Your task to perform on an android device: See recent photos Image 0: 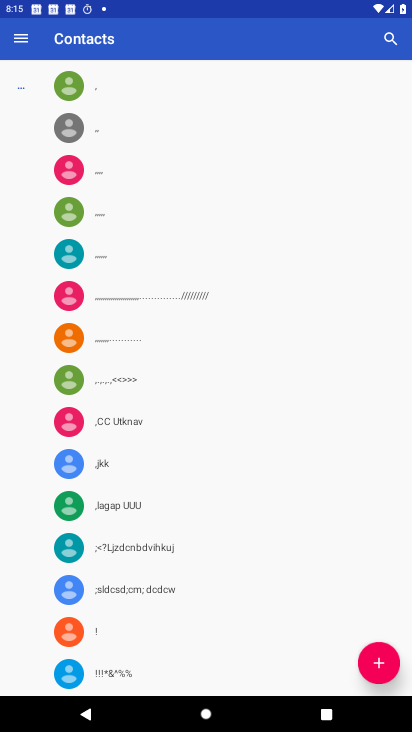
Step 0: press home button
Your task to perform on an android device: See recent photos Image 1: 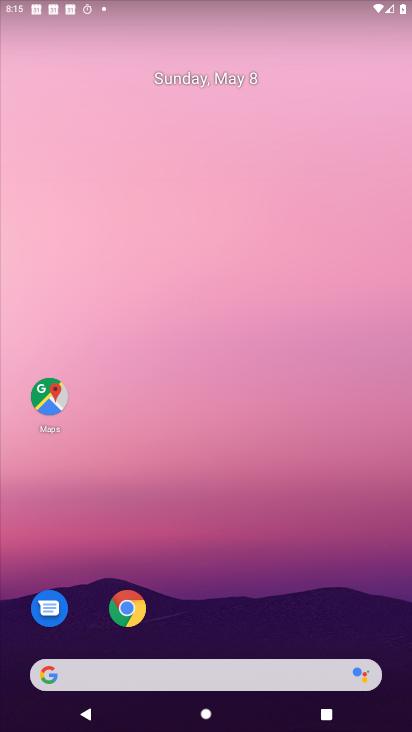
Step 1: drag from (308, 609) to (326, 154)
Your task to perform on an android device: See recent photos Image 2: 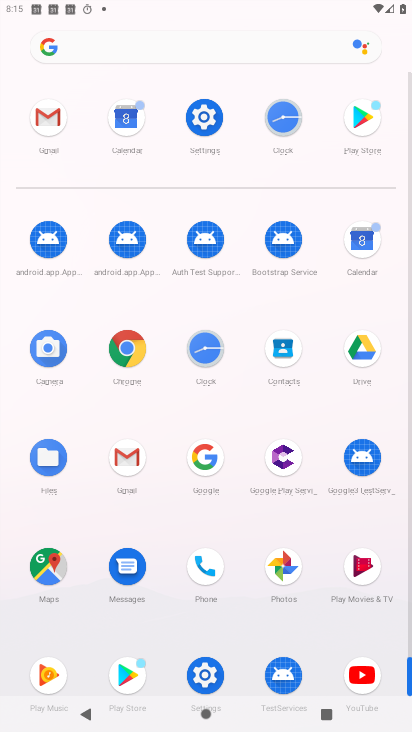
Step 2: click (291, 575)
Your task to perform on an android device: See recent photos Image 3: 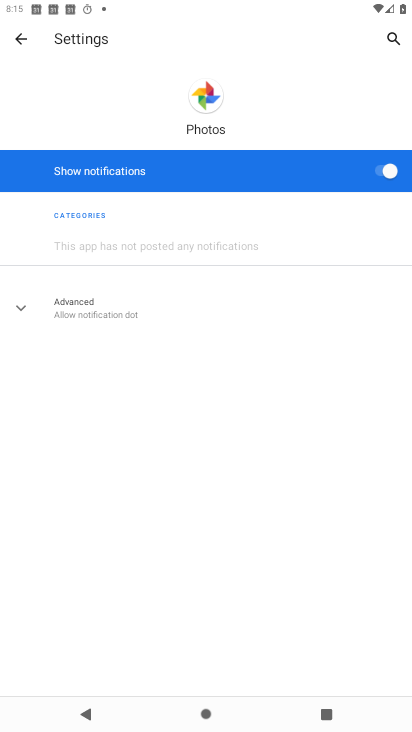
Step 3: press back button
Your task to perform on an android device: See recent photos Image 4: 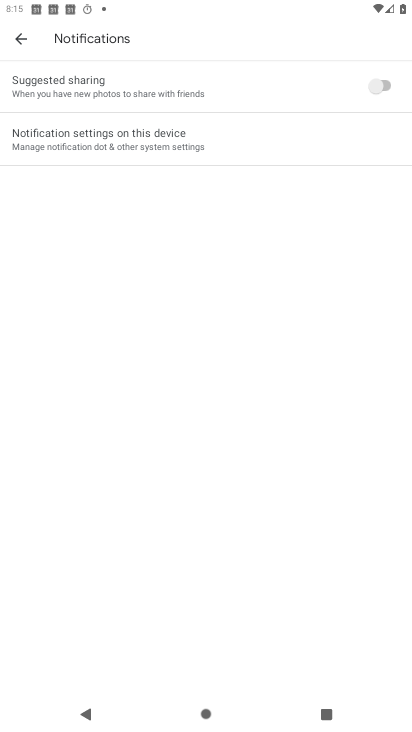
Step 4: press back button
Your task to perform on an android device: See recent photos Image 5: 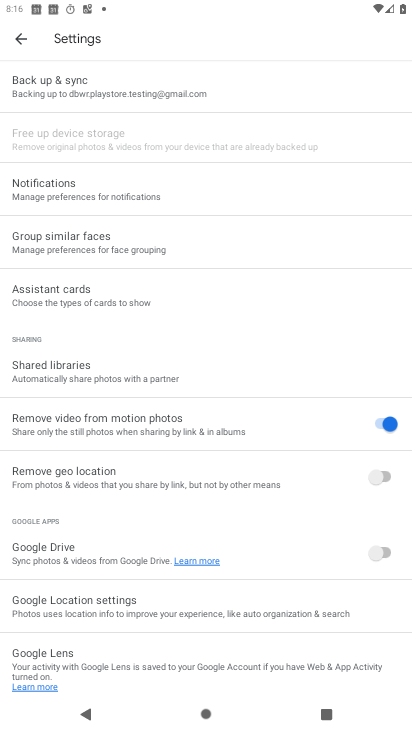
Step 5: press back button
Your task to perform on an android device: See recent photos Image 6: 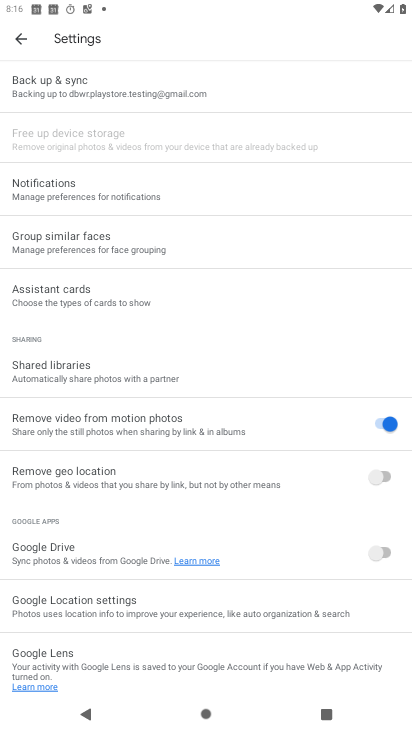
Step 6: press back button
Your task to perform on an android device: See recent photos Image 7: 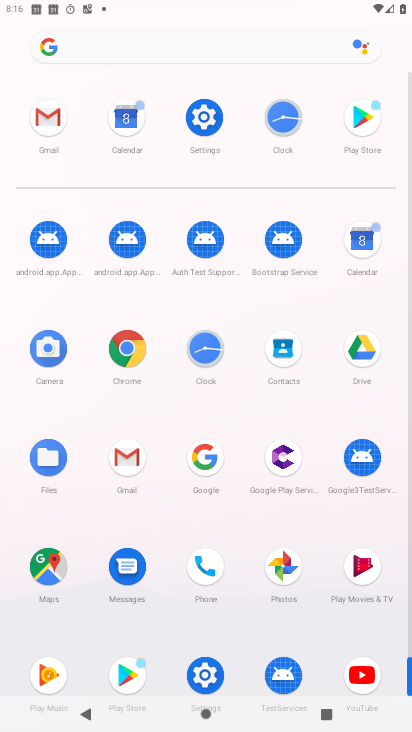
Step 7: click (292, 575)
Your task to perform on an android device: See recent photos Image 8: 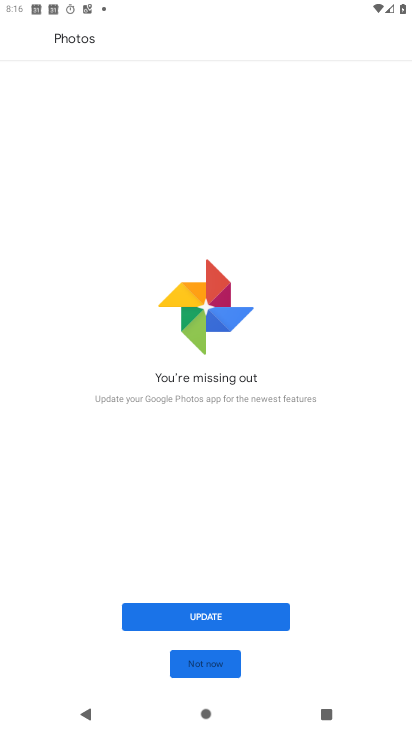
Step 8: click (220, 623)
Your task to perform on an android device: See recent photos Image 9: 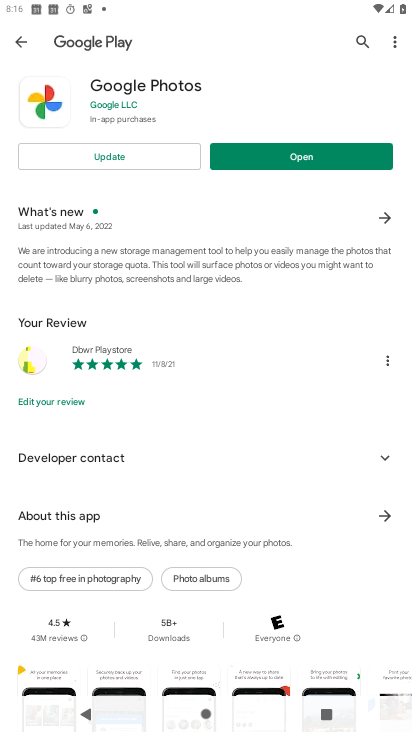
Step 9: click (145, 164)
Your task to perform on an android device: See recent photos Image 10: 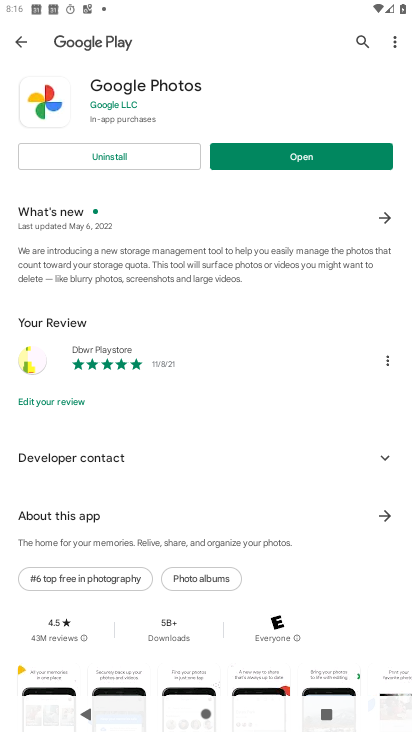
Step 10: click (313, 145)
Your task to perform on an android device: See recent photos Image 11: 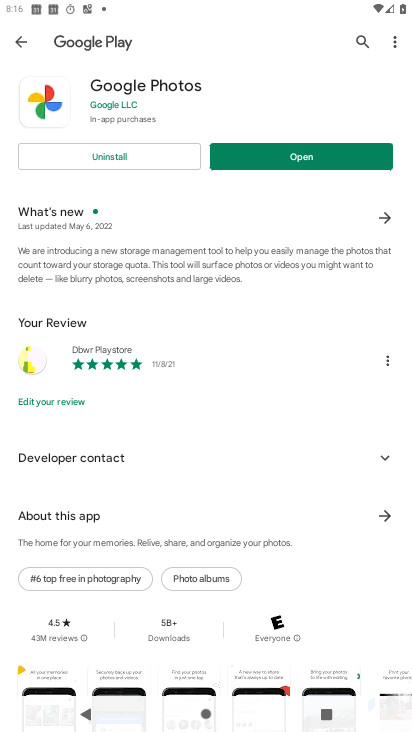
Step 11: click (322, 157)
Your task to perform on an android device: See recent photos Image 12: 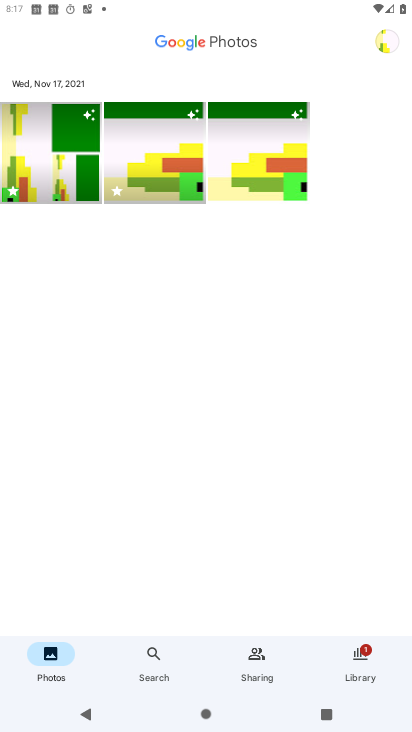
Step 12: task complete